Your task to perform on an android device: Open calendar and show me the first week of next month Image 0: 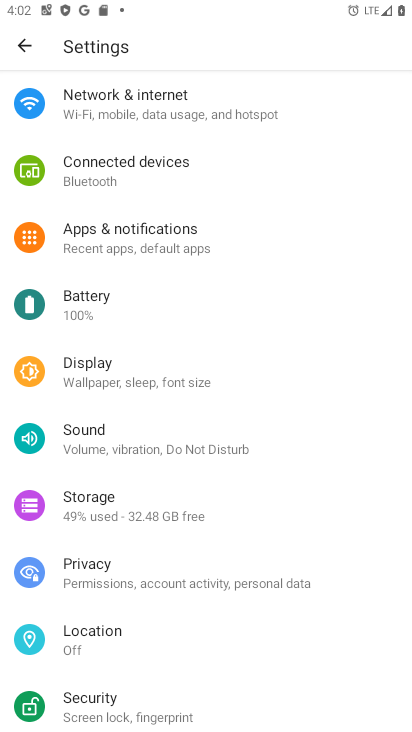
Step 0: press home button
Your task to perform on an android device: Open calendar and show me the first week of next month Image 1: 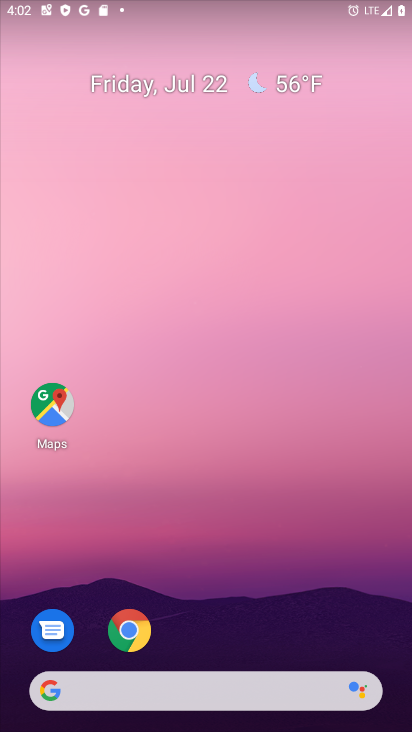
Step 1: drag from (288, 708) to (270, 229)
Your task to perform on an android device: Open calendar and show me the first week of next month Image 2: 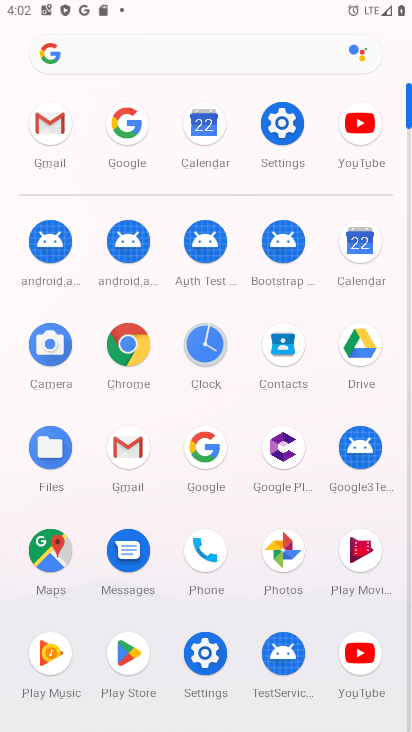
Step 2: click (353, 275)
Your task to perform on an android device: Open calendar and show me the first week of next month Image 3: 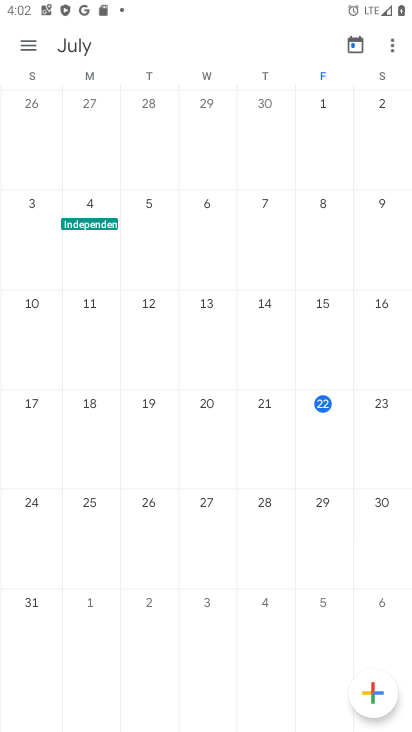
Step 3: task complete